Your task to perform on an android device: Do I have any events tomorrow? Image 0: 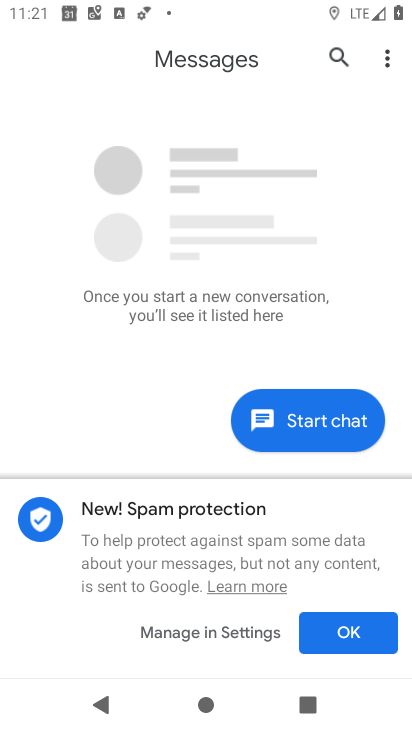
Step 0: press home button
Your task to perform on an android device: Do I have any events tomorrow? Image 1: 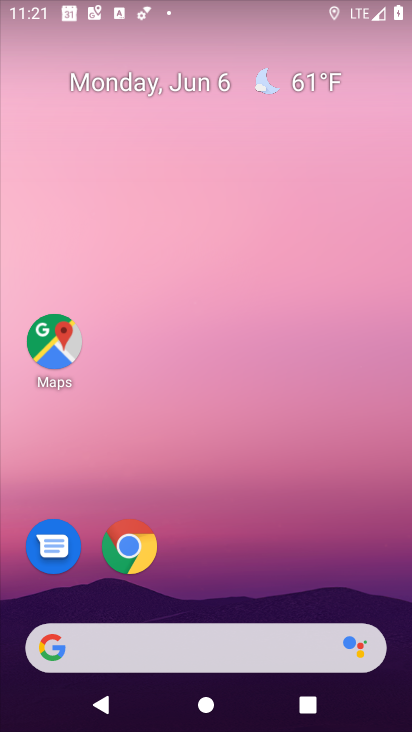
Step 1: drag from (396, 609) to (335, 2)
Your task to perform on an android device: Do I have any events tomorrow? Image 2: 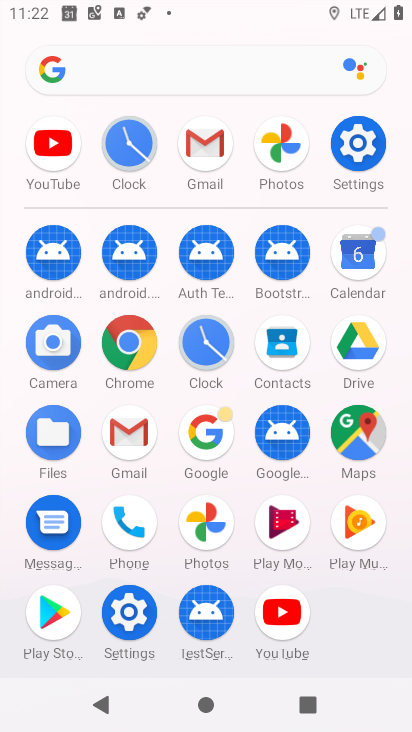
Step 2: click (357, 252)
Your task to perform on an android device: Do I have any events tomorrow? Image 3: 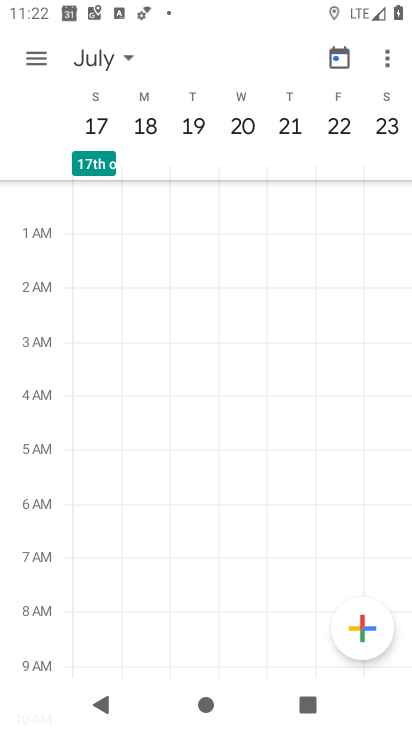
Step 3: click (39, 53)
Your task to perform on an android device: Do I have any events tomorrow? Image 4: 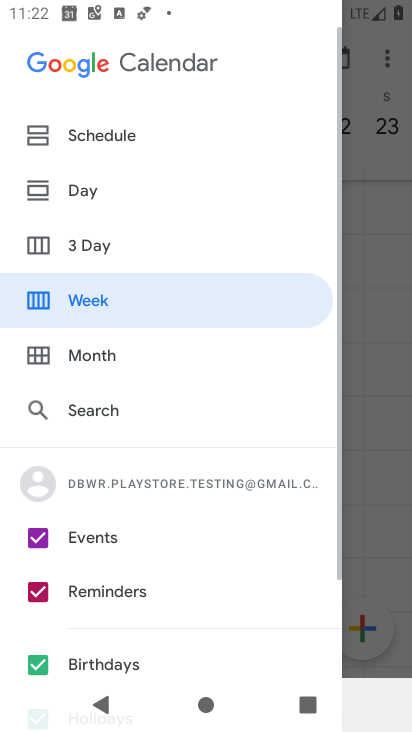
Step 4: click (81, 182)
Your task to perform on an android device: Do I have any events tomorrow? Image 5: 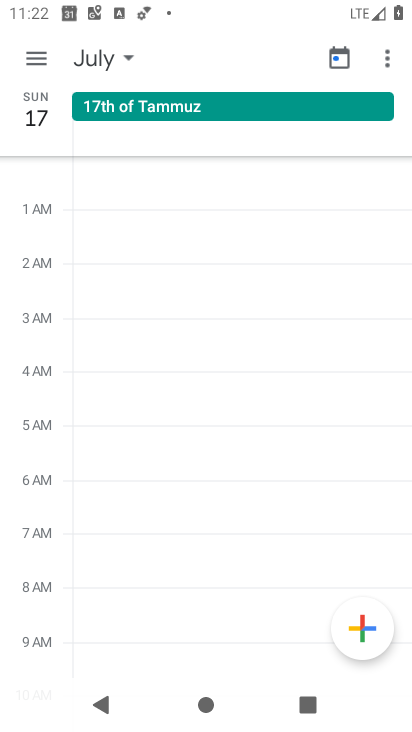
Step 5: click (123, 58)
Your task to perform on an android device: Do I have any events tomorrow? Image 6: 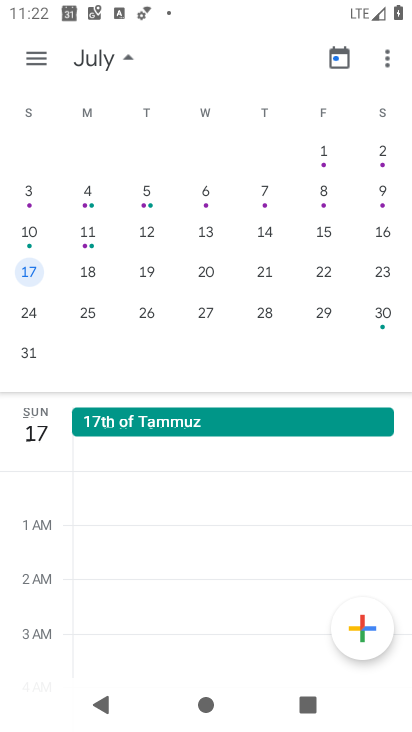
Step 6: drag from (32, 272) to (382, 271)
Your task to perform on an android device: Do I have any events tomorrow? Image 7: 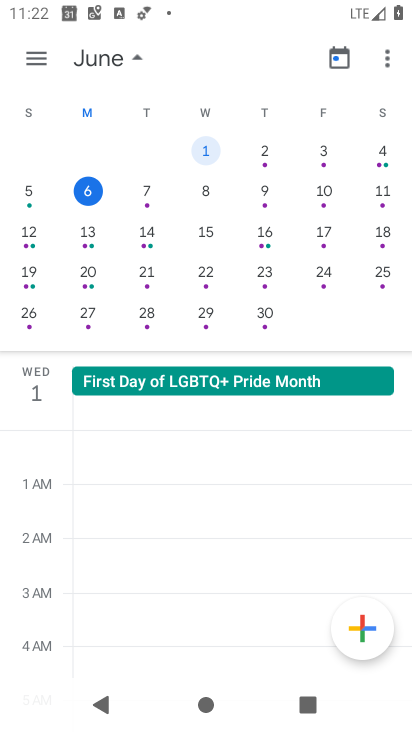
Step 7: click (141, 189)
Your task to perform on an android device: Do I have any events tomorrow? Image 8: 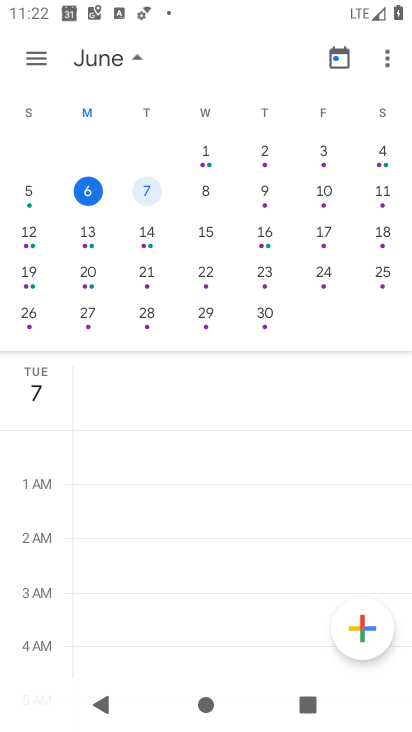
Step 8: task complete